Your task to perform on an android device: clear history in the chrome app Image 0: 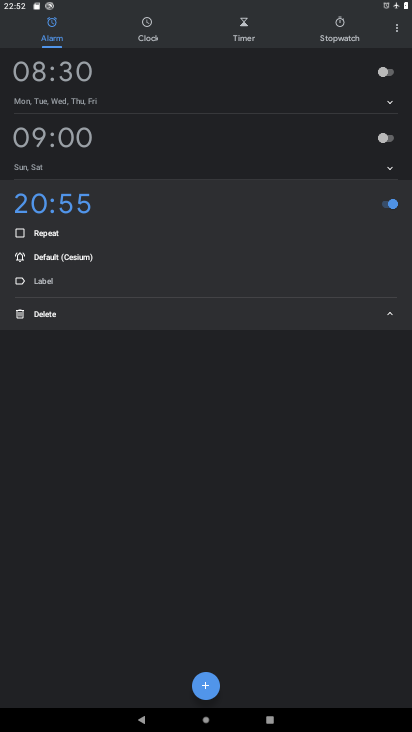
Step 0: press home button
Your task to perform on an android device: clear history in the chrome app Image 1: 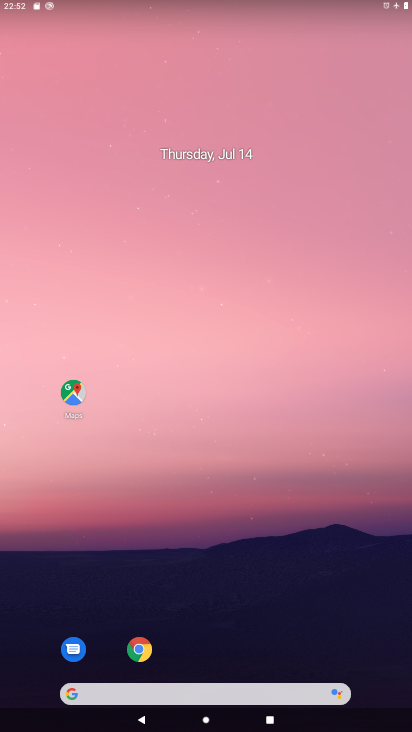
Step 1: click (141, 644)
Your task to perform on an android device: clear history in the chrome app Image 2: 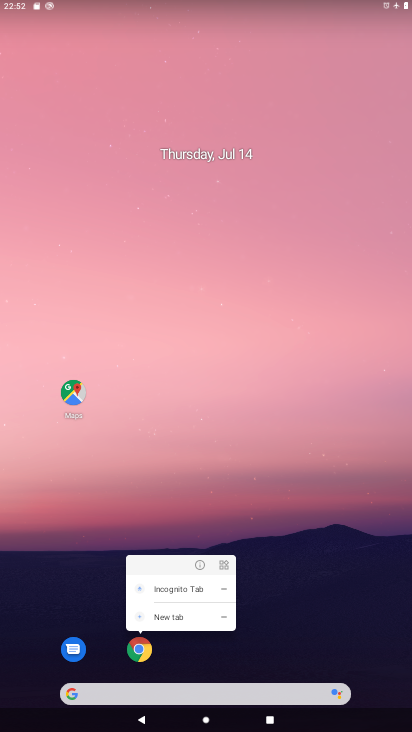
Step 2: click (139, 648)
Your task to perform on an android device: clear history in the chrome app Image 3: 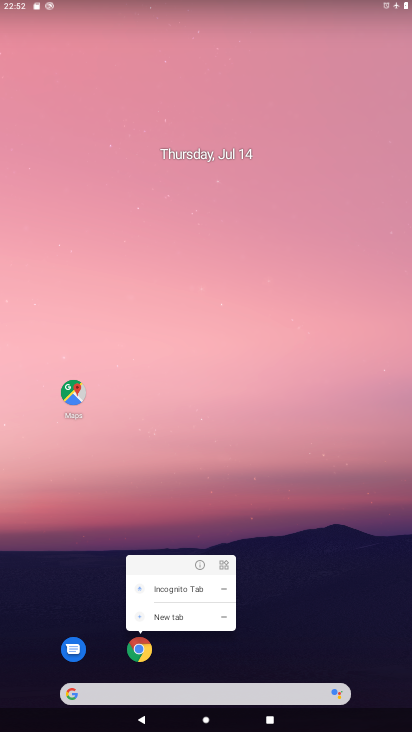
Step 3: click (139, 648)
Your task to perform on an android device: clear history in the chrome app Image 4: 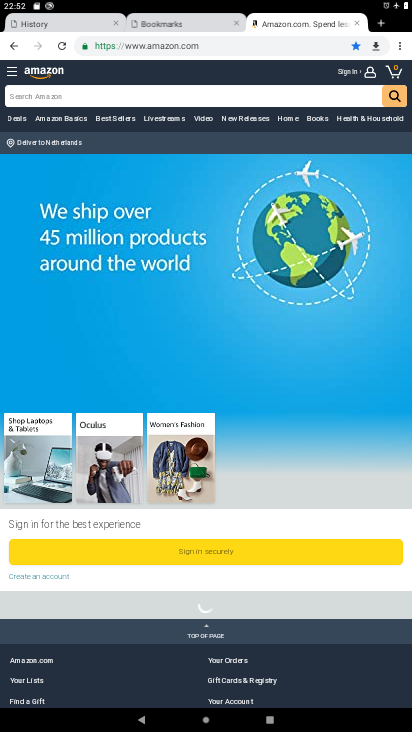
Step 4: click (398, 41)
Your task to perform on an android device: clear history in the chrome app Image 5: 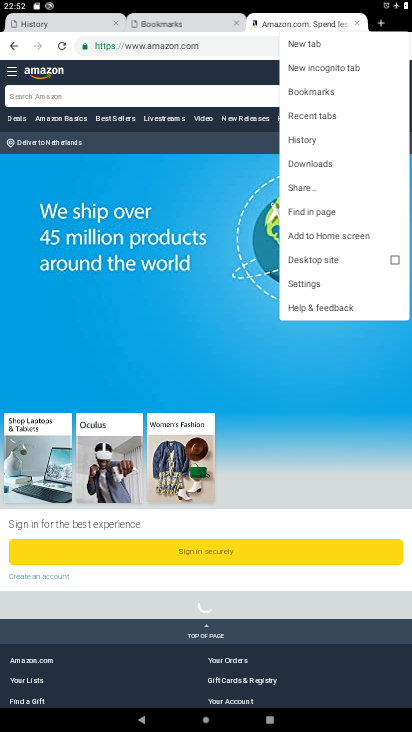
Step 5: click (310, 142)
Your task to perform on an android device: clear history in the chrome app Image 6: 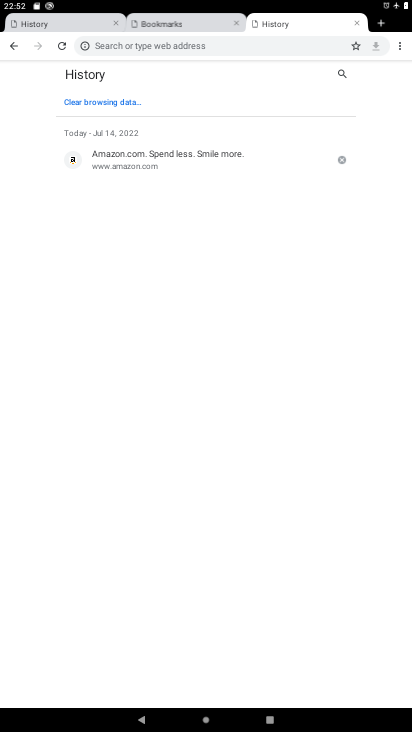
Step 6: click (92, 99)
Your task to perform on an android device: clear history in the chrome app Image 7: 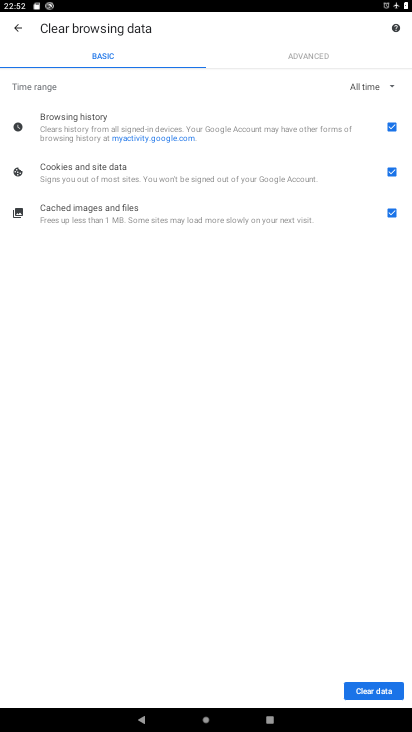
Step 7: click (375, 687)
Your task to perform on an android device: clear history in the chrome app Image 8: 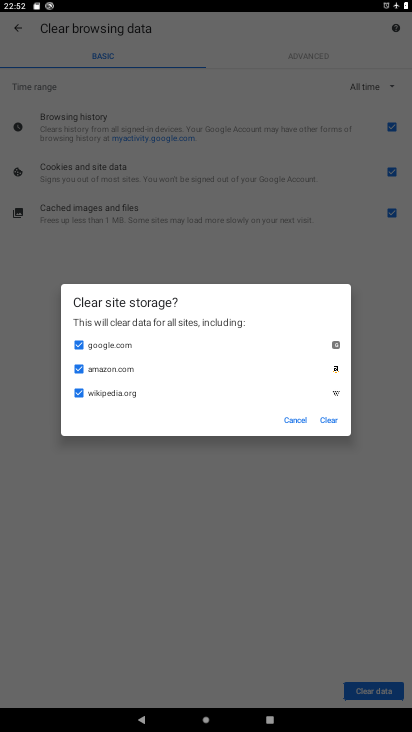
Step 8: click (326, 416)
Your task to perform on an android device: clear history in the chrome app Image 9: 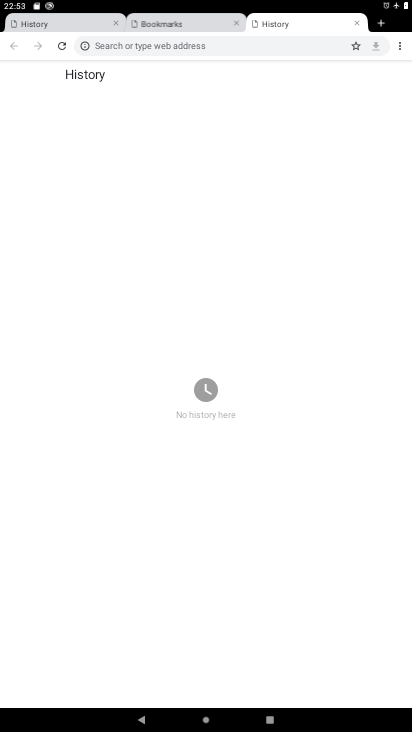
Step 9: task complete